Your task to perform on an android device: turn on bluetooth scan Image 0: 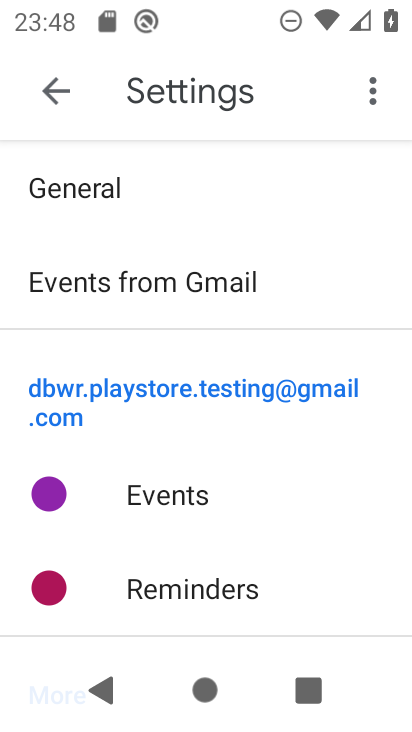
Step 0: press home button
Your task to perform on an android device: turn on bluetooth scan Image 1: 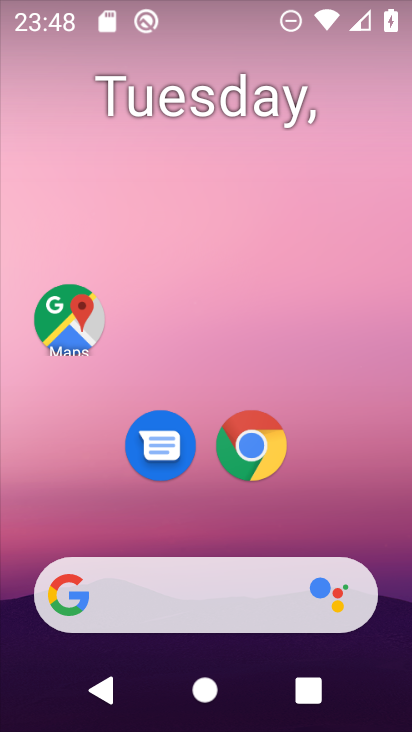
Step 1: drag from (220, 525) to (335, 91)
Your task to perform on an android device: turn on bluetooth scan Image 2: 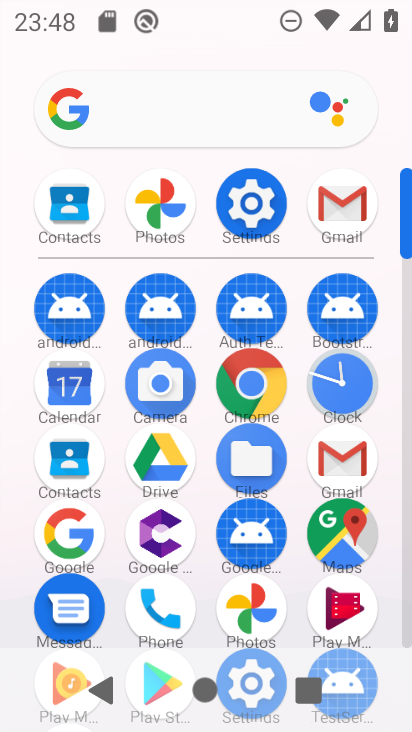
Step 2: click (232, 198)
Your task to perform on an android device: turn on bluetooth scan Image 3: 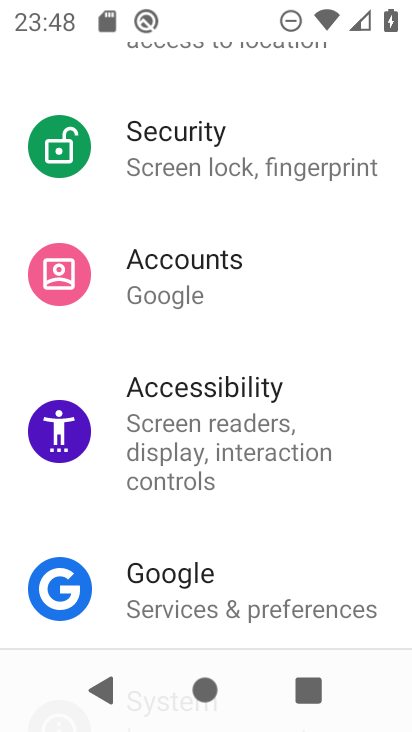
Step 3: drag from (199, 540) to (211, 642)
Your task to perform on an android device: turn on bluetooth scan Image 4: 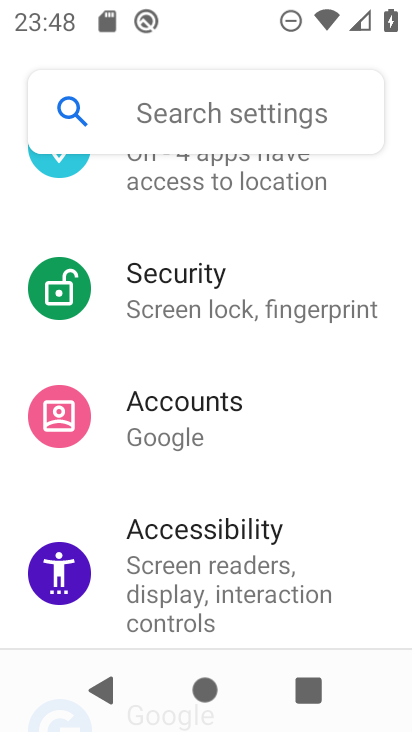
Step 4: drag from (189, 456) to (229, 618)
Your task to perform on an android device: turn on bluetooth scan Image 5: 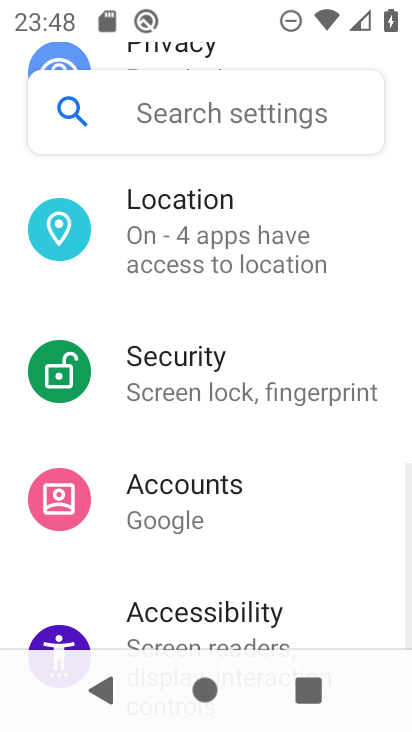
Step 5: drag from (228, 420) to (237, 586)
Your task to perform on an android device: turn on bluetooth scan Image 6: 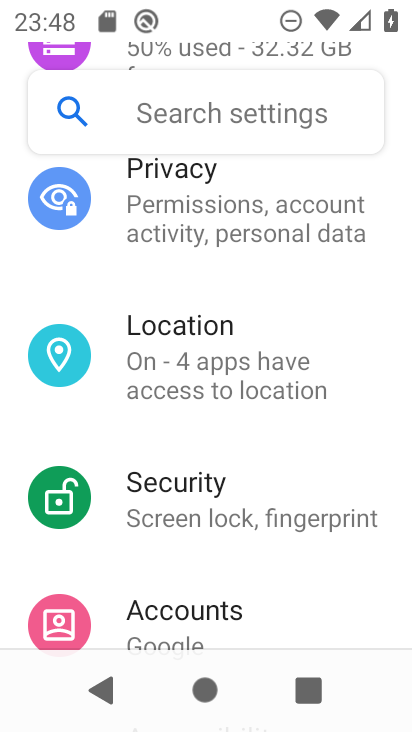
Step 6: click (224, 394)
Your task to perform on an android device: turn on bluetooth scan Image 7: 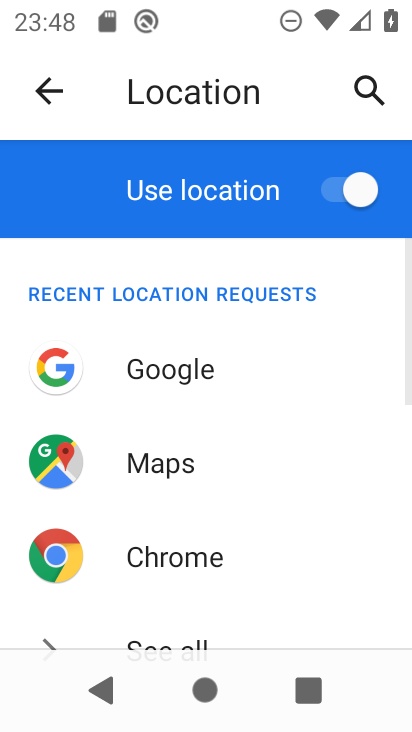
Step 7: drag from (144, 607) to (146, 427)
Your task to perform on an android device: turn on bluetooth scan Image 8: 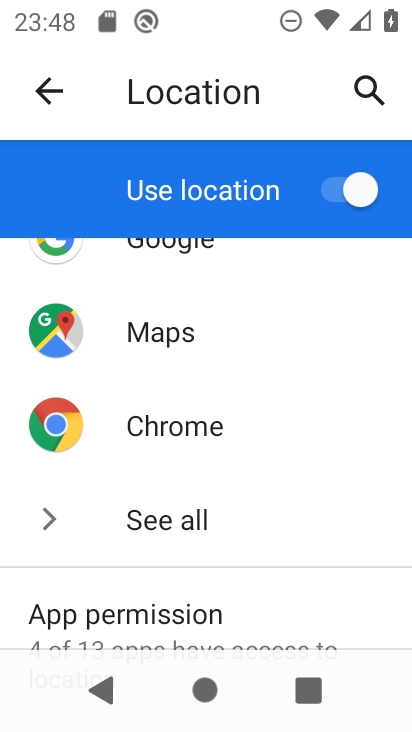
Step 8: drag from (151, 558) to (196, 336)
Your task to perform on an android device: turn on bluetooth scan Image 9: 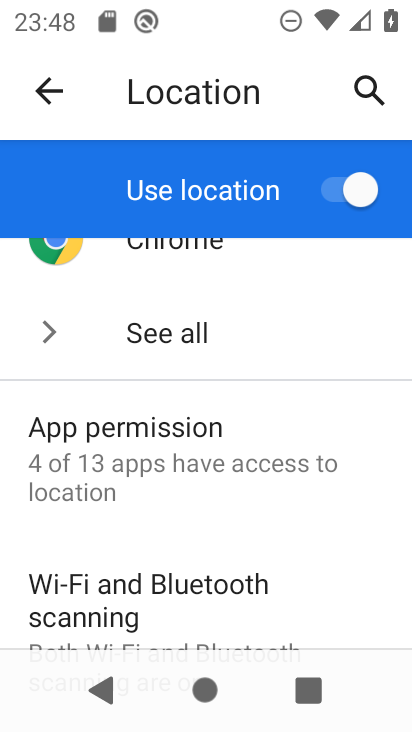
Step 9: drag from (141, 574) to (223, 360)
Your task to perform on an android device: turn on bluetooth scan Image 10: 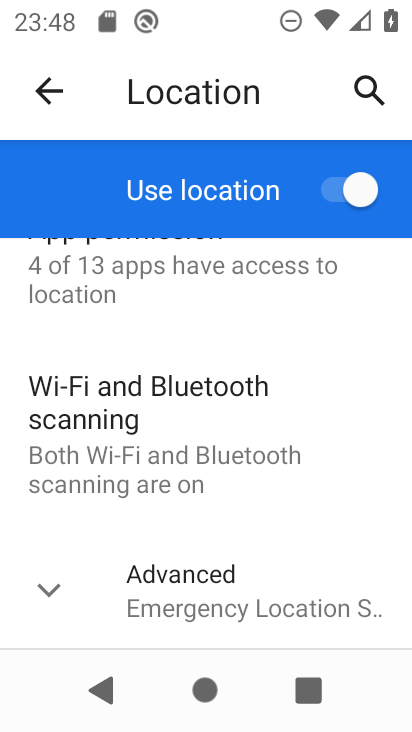
Step 10: click (174, 468)
Your task to perform on an android device: turn on bluetooth scan Image 11: 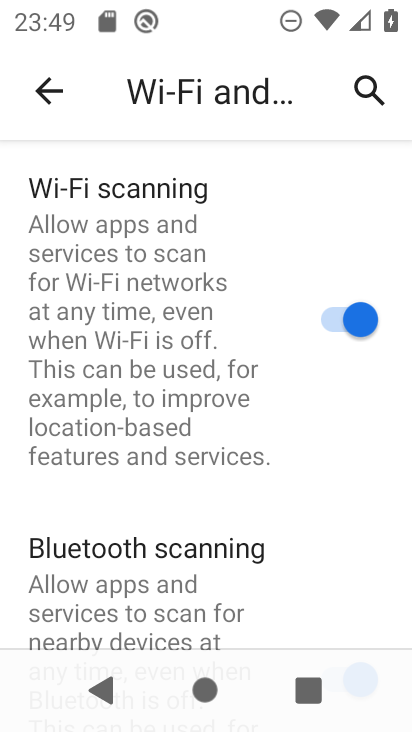
Step 11: task complete